Your task to perform on an android device: Open Reddit.com Image 0: 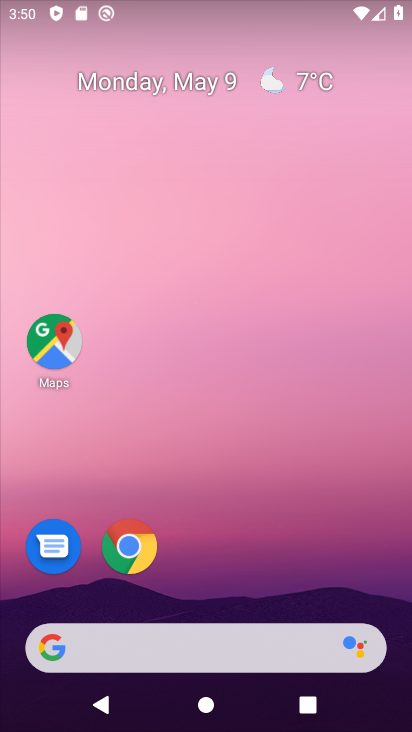
Step 0: click (209, 639)
Your task to perform on an android device: Open Reddit.com Image 1: 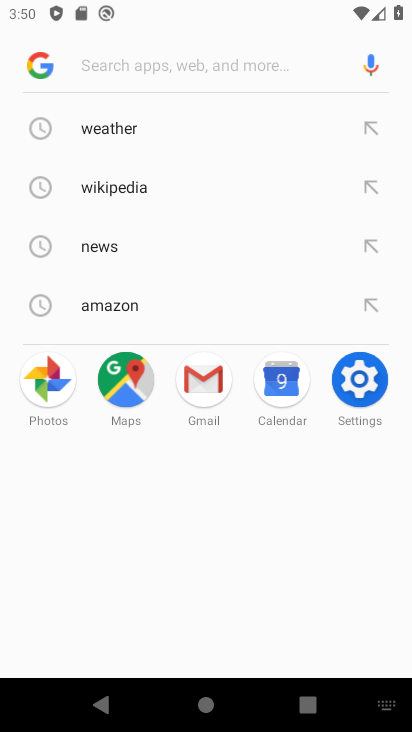
Step 1: type "Reddit.com"
Your task to perform on an android device: Open Reddit.com Image 2: 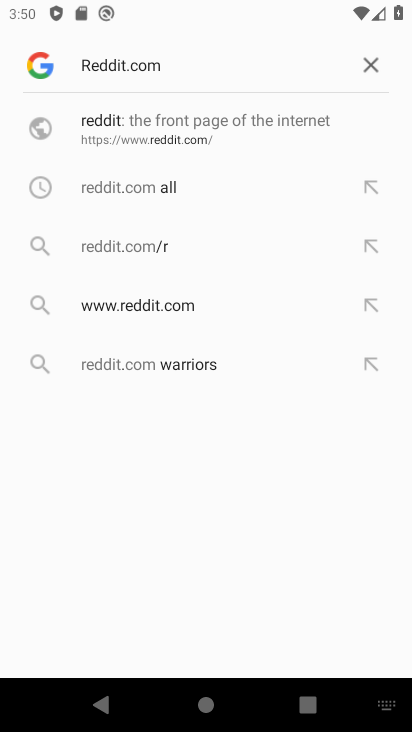
Step 2: click (256, 140)
Your task to perform on an android device: Open Reddit.com Image 3: 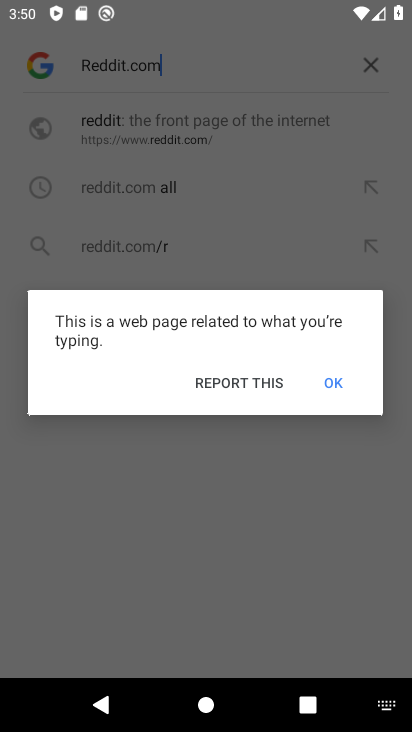
Step 3: click (344, 359)
Your task to perform on an android device: Open Reddit.com Image 4: 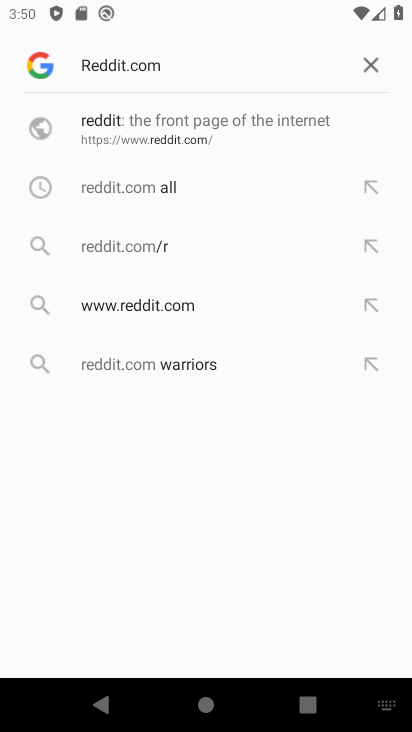
Step 4: click (198, 319)
Your task to perform on an android device: Open Reddit.com Image 5: 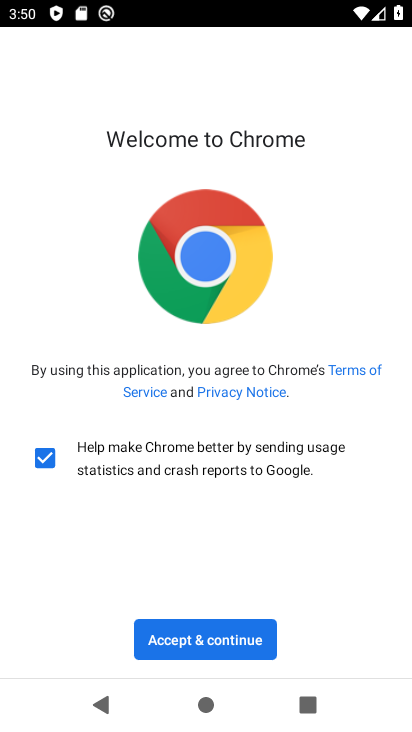
Step 5: click (200, 634)
Your task to perform on an android device: Open Reddit.com Image 6: 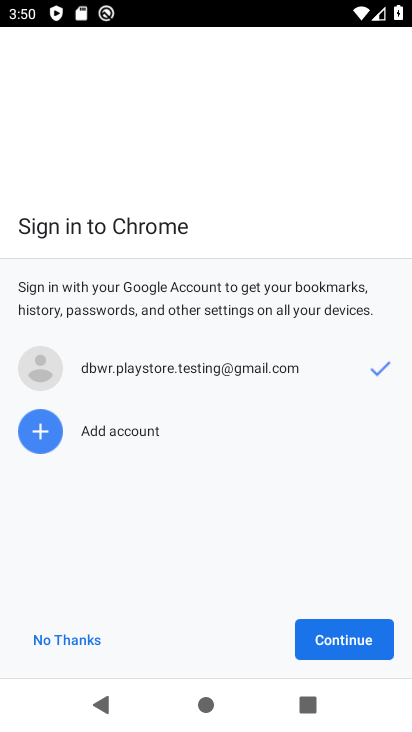
Step 6: click (333, 639)
Your task to perform on an android device: Open Reddit.com Image 7: 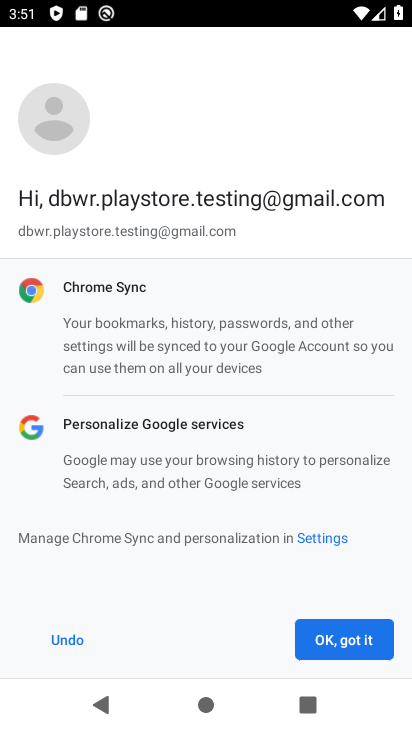
Step 7: click (333, 639)
Your task to perform on an android device: Open Reddit.com Image 8: 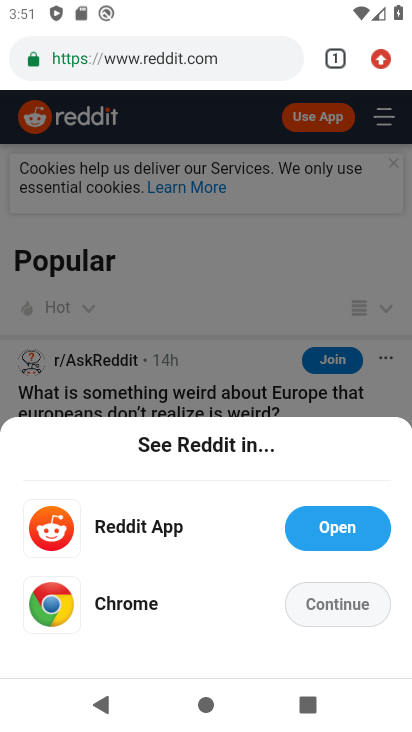
Step 8: click (328, 248)
Your task to perform on an android device: Open Reddit.com Image 9: 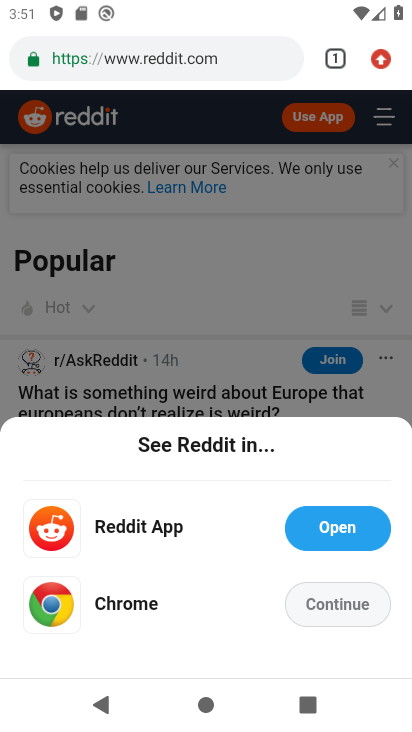
Step 9: task complete